Your task to perform on an android device: Clear all items from cart on amazon. Add logitech g933 to the cart on amazon, then select checkout. Image 0: 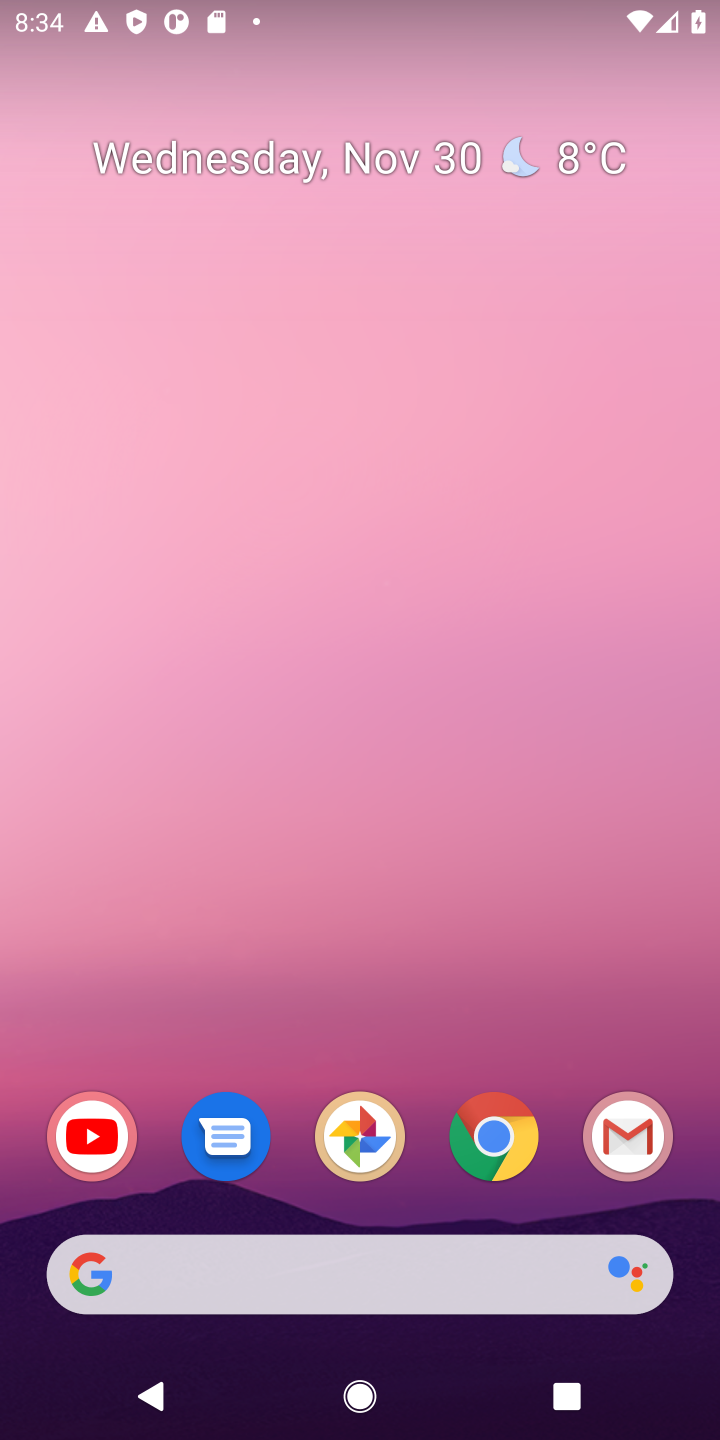
Step 0: click (503, 1133)
Your task to perform on an android device: Clear all items from cart on amazon. Add logitech g933 to the cart on amazon, then select checkout. Image 1: 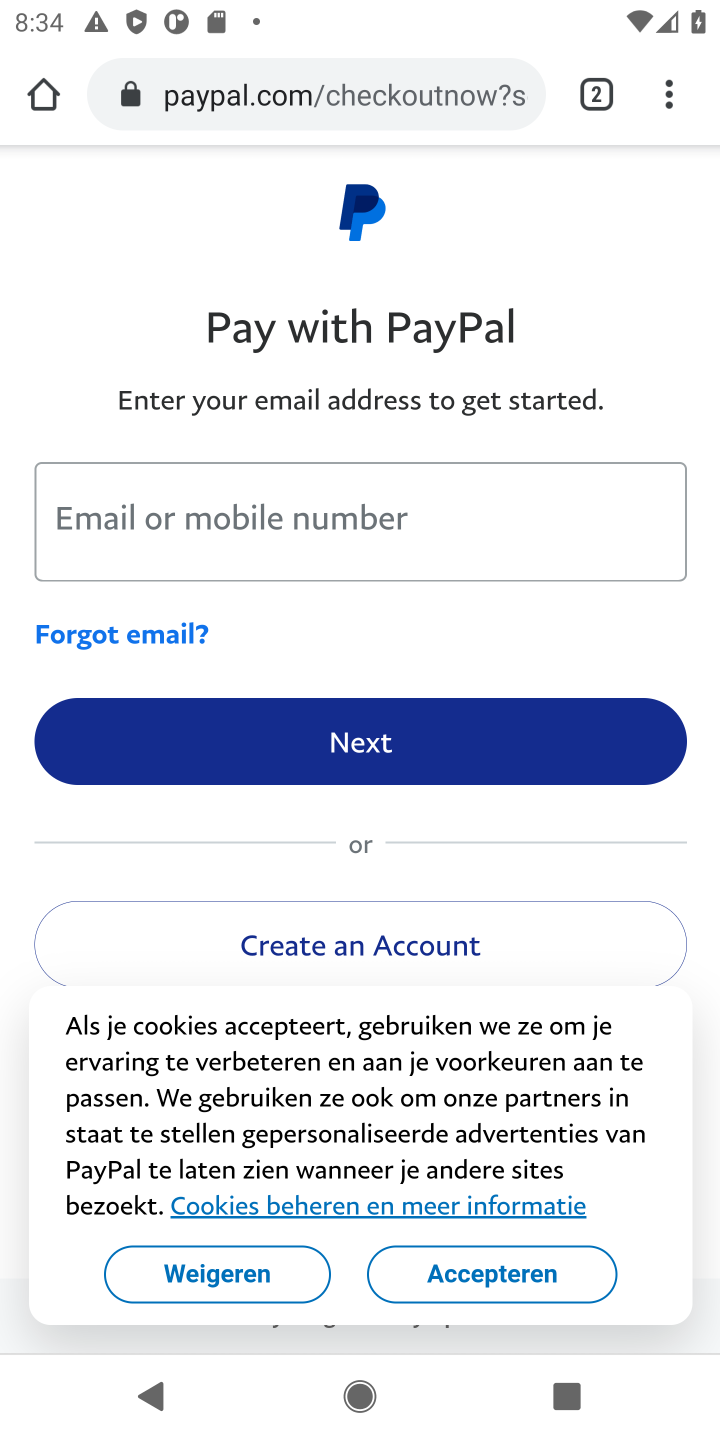
Step 1: click (310, 95)
Your task to perform on an android device: Clear all items from cart on amazon. Add logitech g933 to the cart on amazon, then select checkout. Image 2: 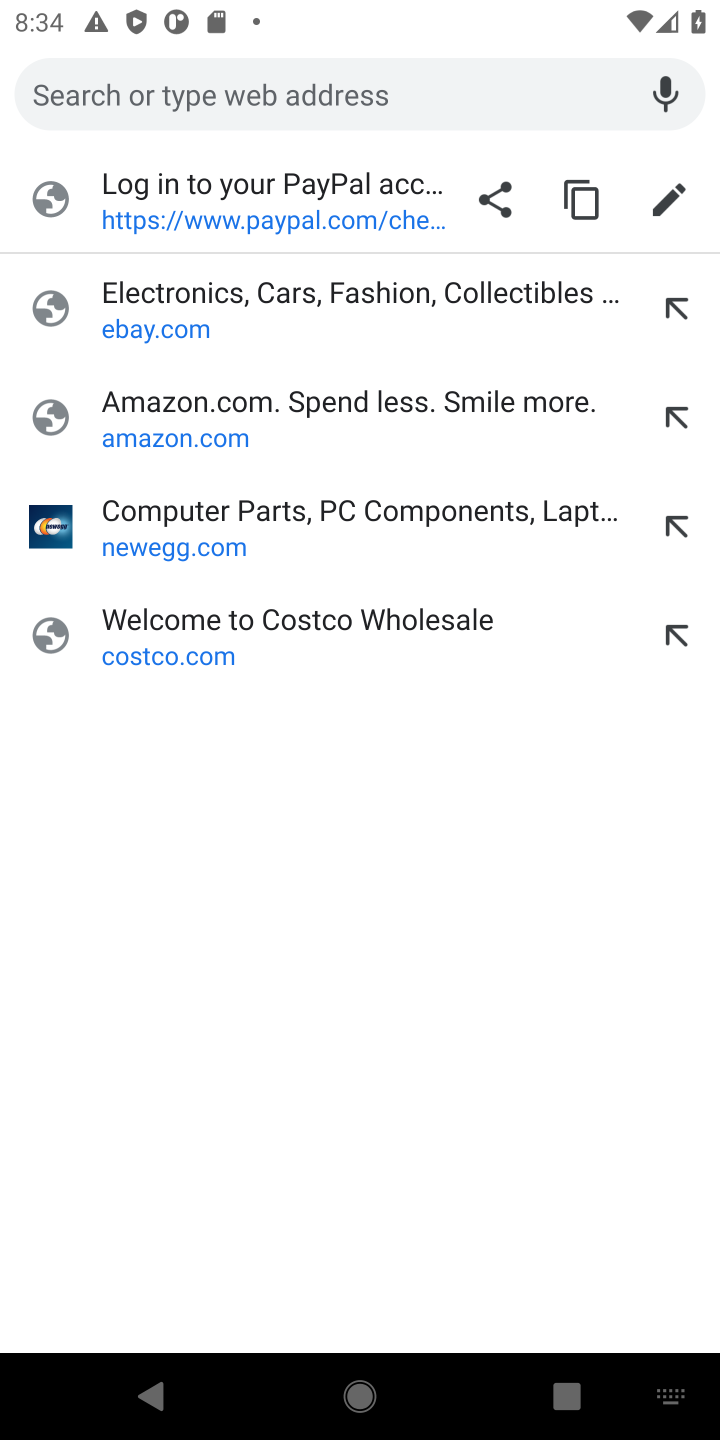
Step 2: click (151, 430)
Your task to perform on an android device: Clear all items from cart on amazon. Add logitech g933 to the cart on amazon, then select checkout. Image 3: 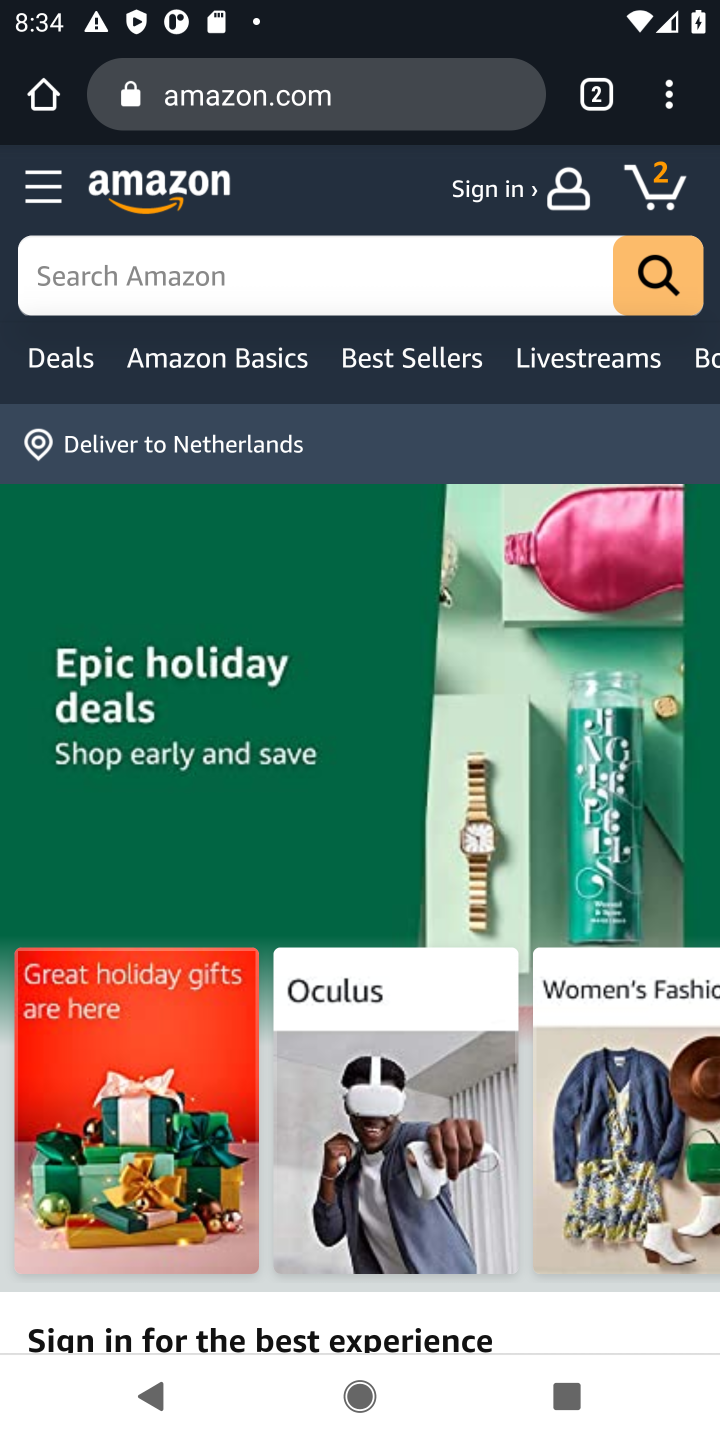
Step 3: click (650, 193)
Your task to perform on an android device: Clear all items from cart on amazon. Add logitech g933 to the cart on amazon, then select checkout. Image 4: 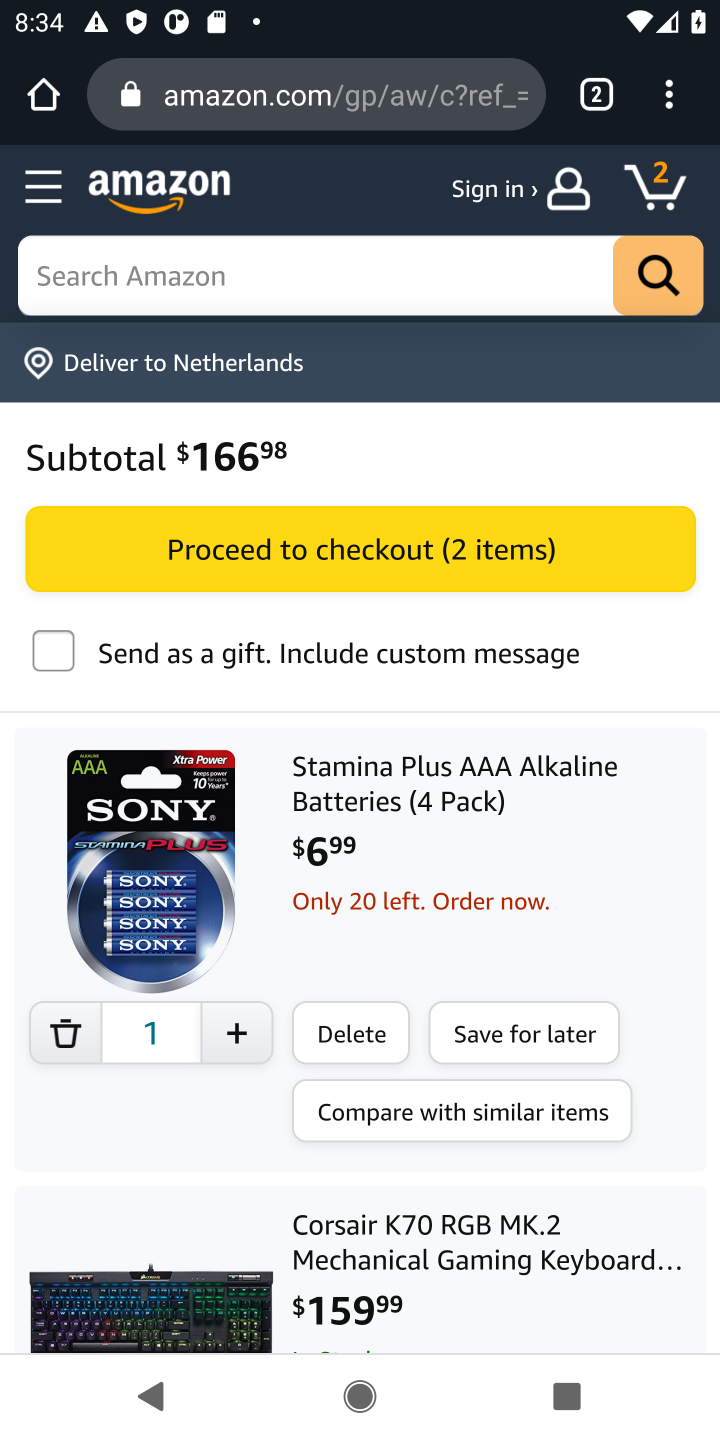
Step 4: click (61, 1032)
Your task to perform on an android device: Clear all items from cart on amazon. Add logitech g933 to the cart on amazon, then select checkout. Image 5: 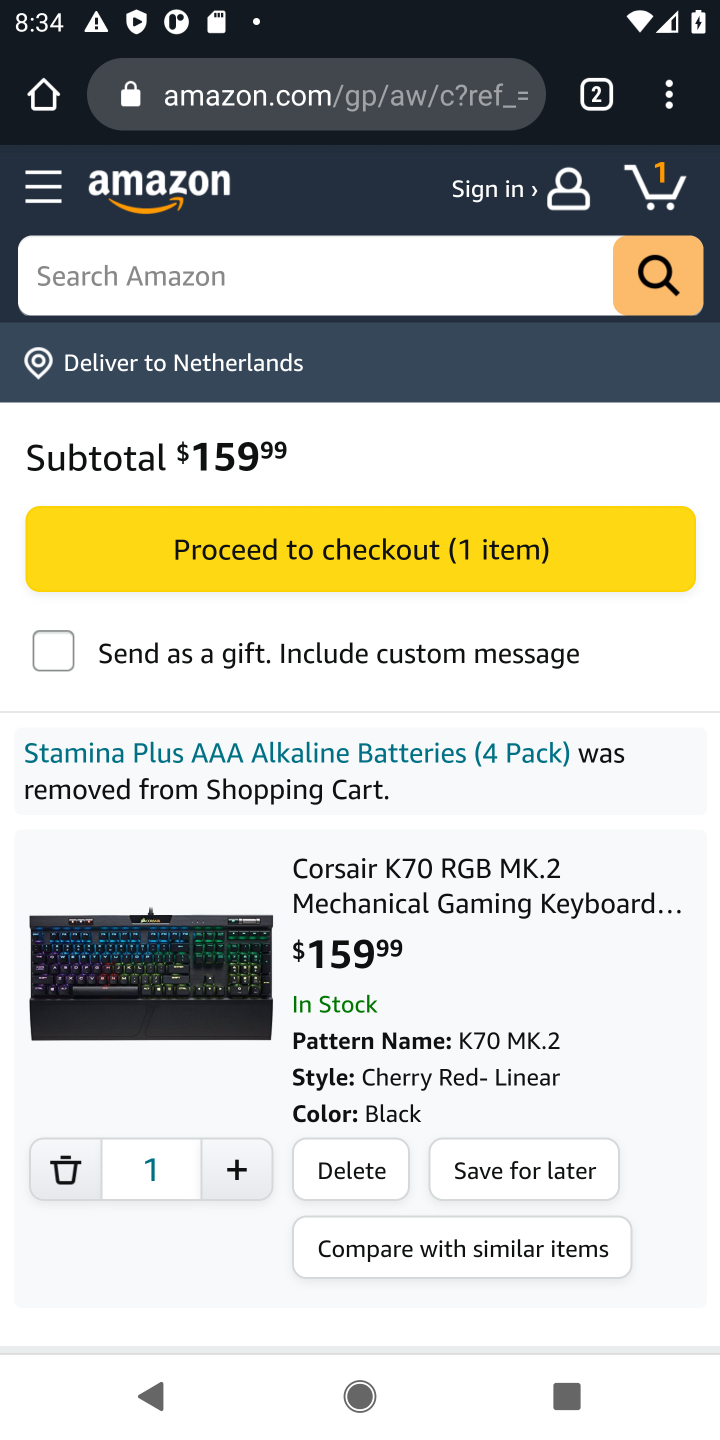
Step 5: click (67, 1169)
Your task to perform on an android device: Clear all items from cart on amazon. Add logitech g933 to the cart on amazon, then select checkout. Image 6: 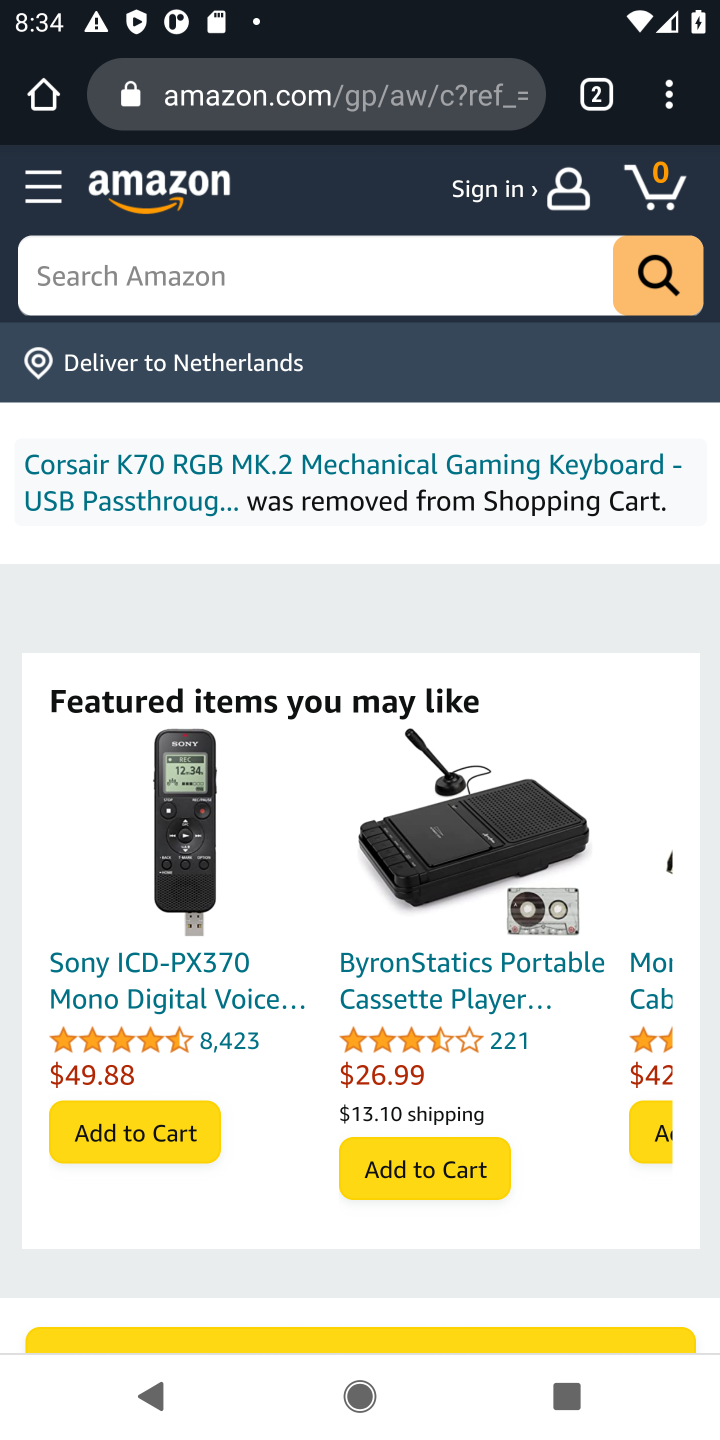
Step 6: click (181, 287)
Your task to perform on an android device: Clear all items from cart on amazon. Add logitech g933 to the cart on amazon, then select checkout. Image 7: 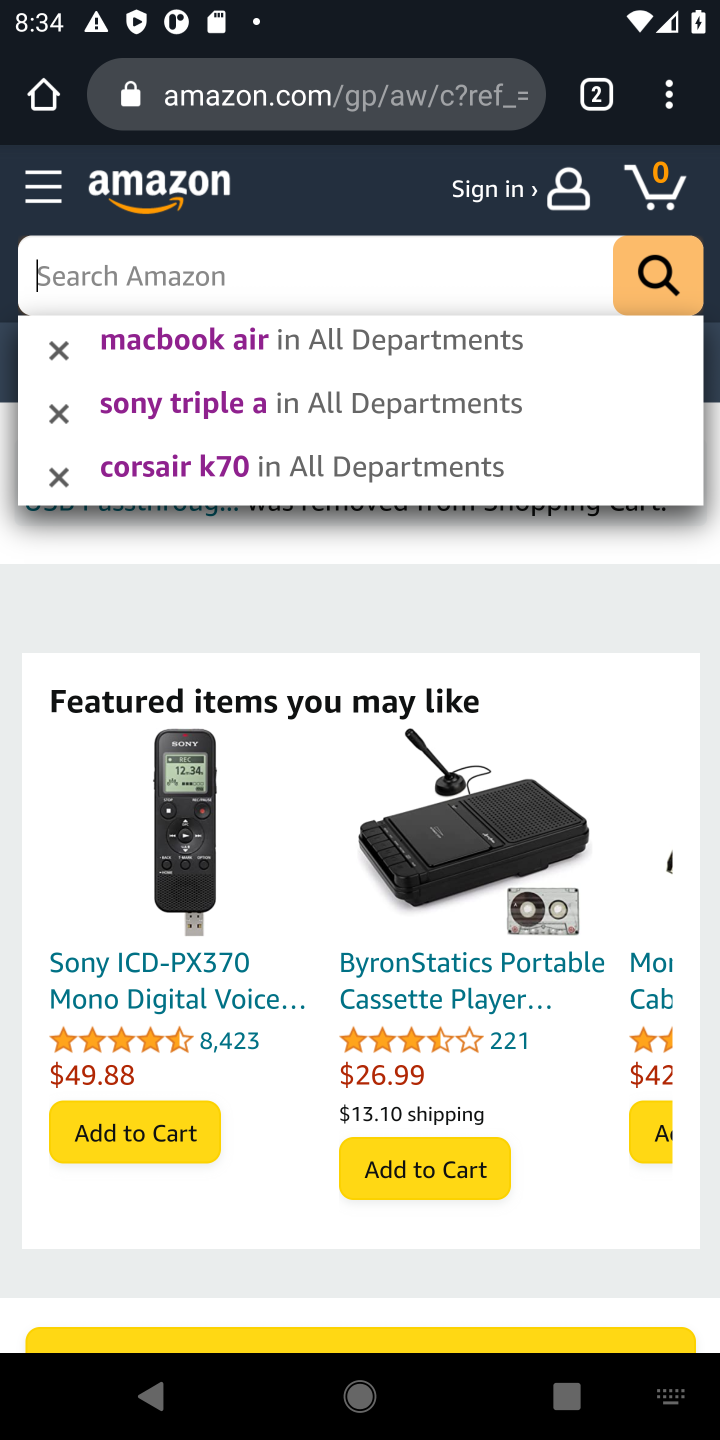
Step 7: type "logitech g933 "
Your task to perform on an android device: Clear all items from cart on amazon. Add logitech g933 to the cart on amazon, then select checkout. Image 8: 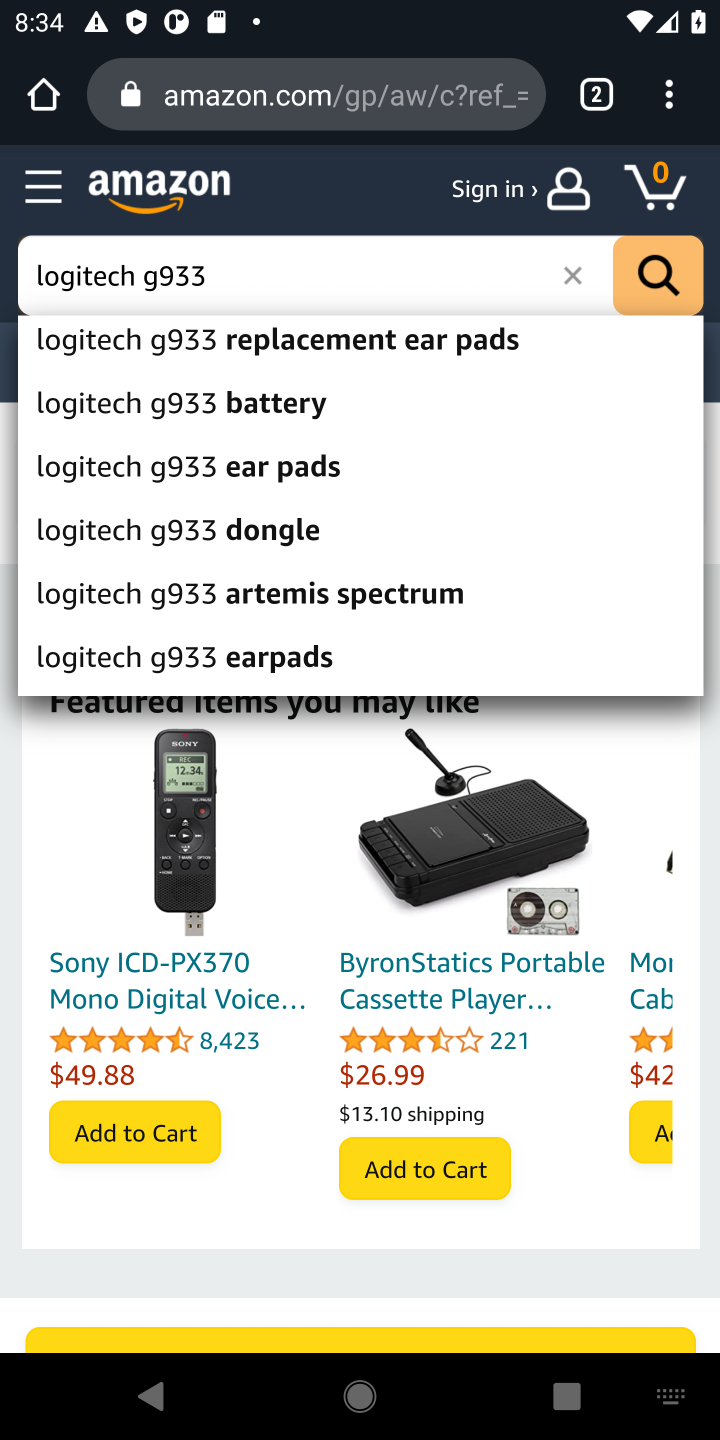
Step 8: click (656, 282)
Your task to perform on an android device: Clear all items from cart on amazon. Add logitech g933 to the cart on amazon, then select checkout. Image 9: 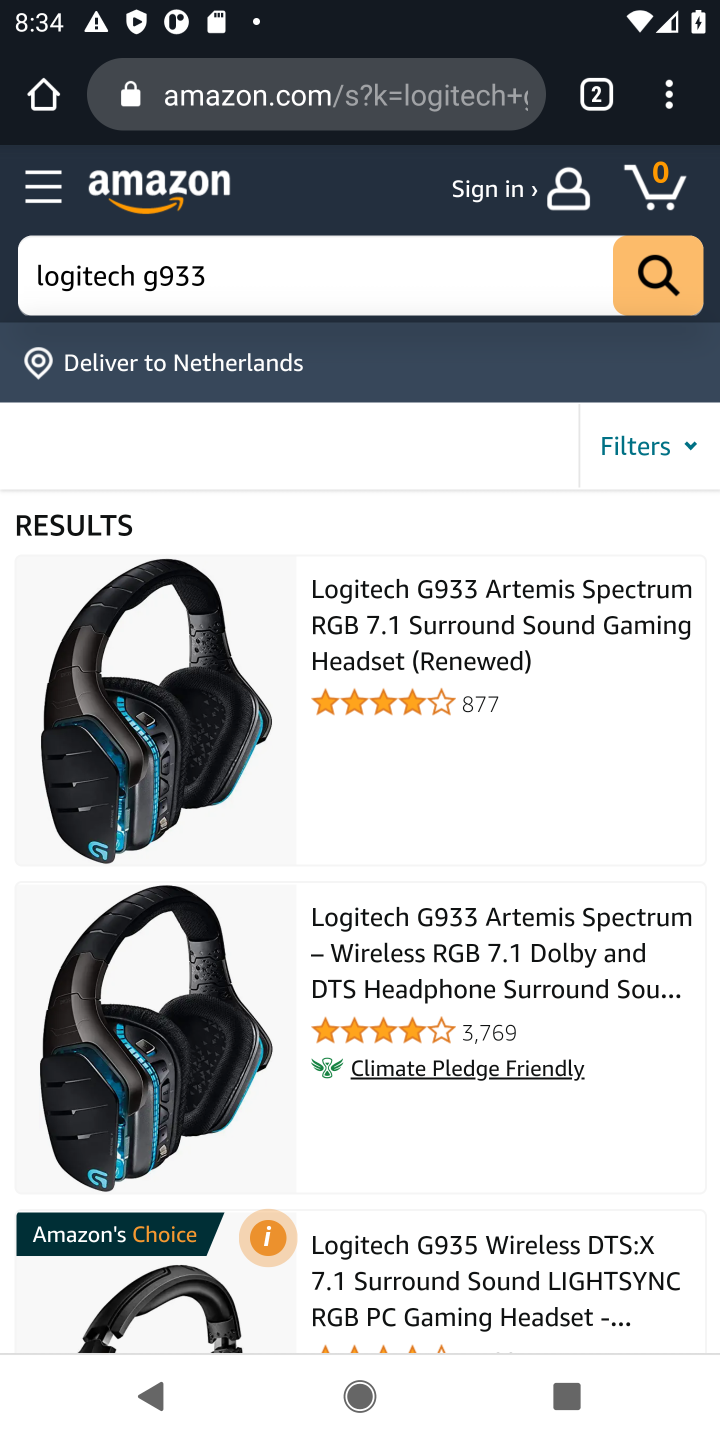
Step 9: drag from (500, 979) to (452, 503)
Your task to perform on an android device: Clear all items from cart on amazon. Add logitech g933 to the cart on amazon, then select checkout. Image 10: 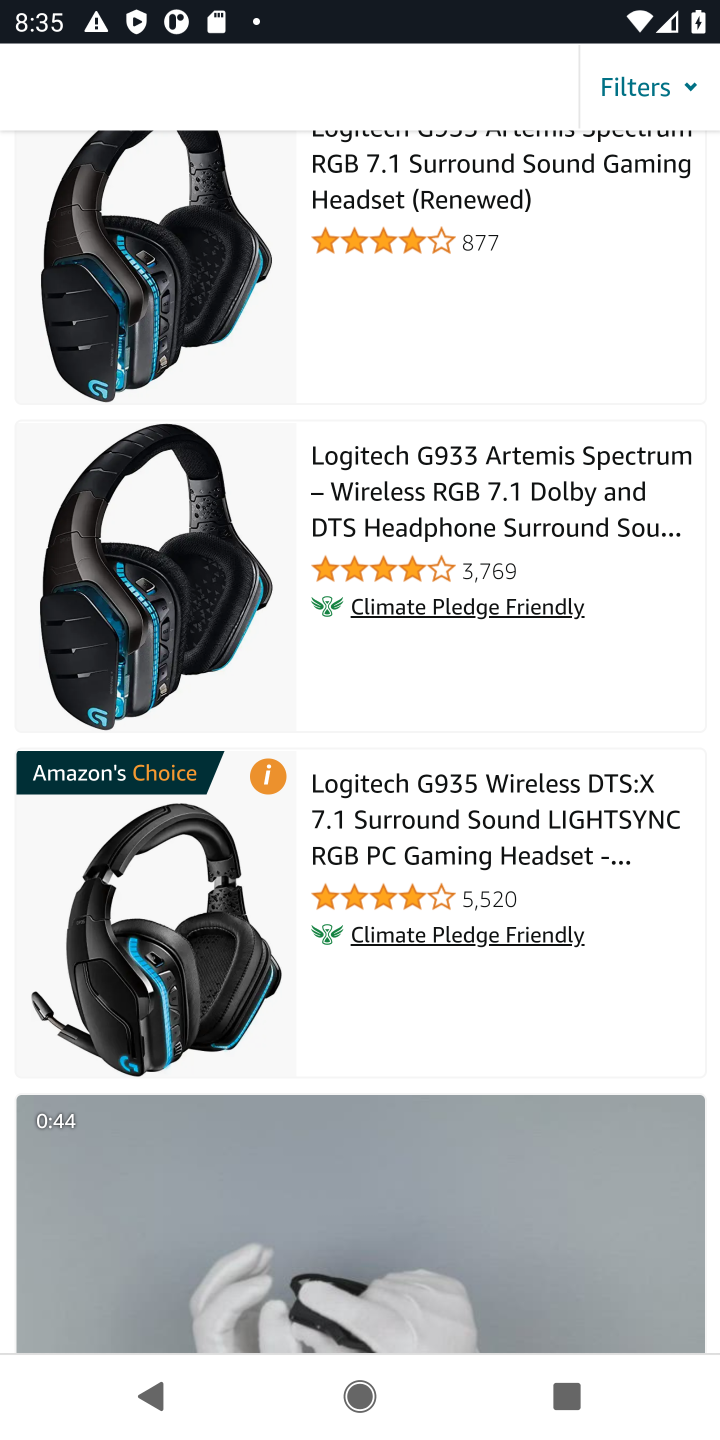
Step 10: drag from (403, 889) to (331, 292)
Your task to perform on an android device: Clear all items from cart on amazon. Add logitech g933 to the cart on amazon, then select checkout. Image 11: 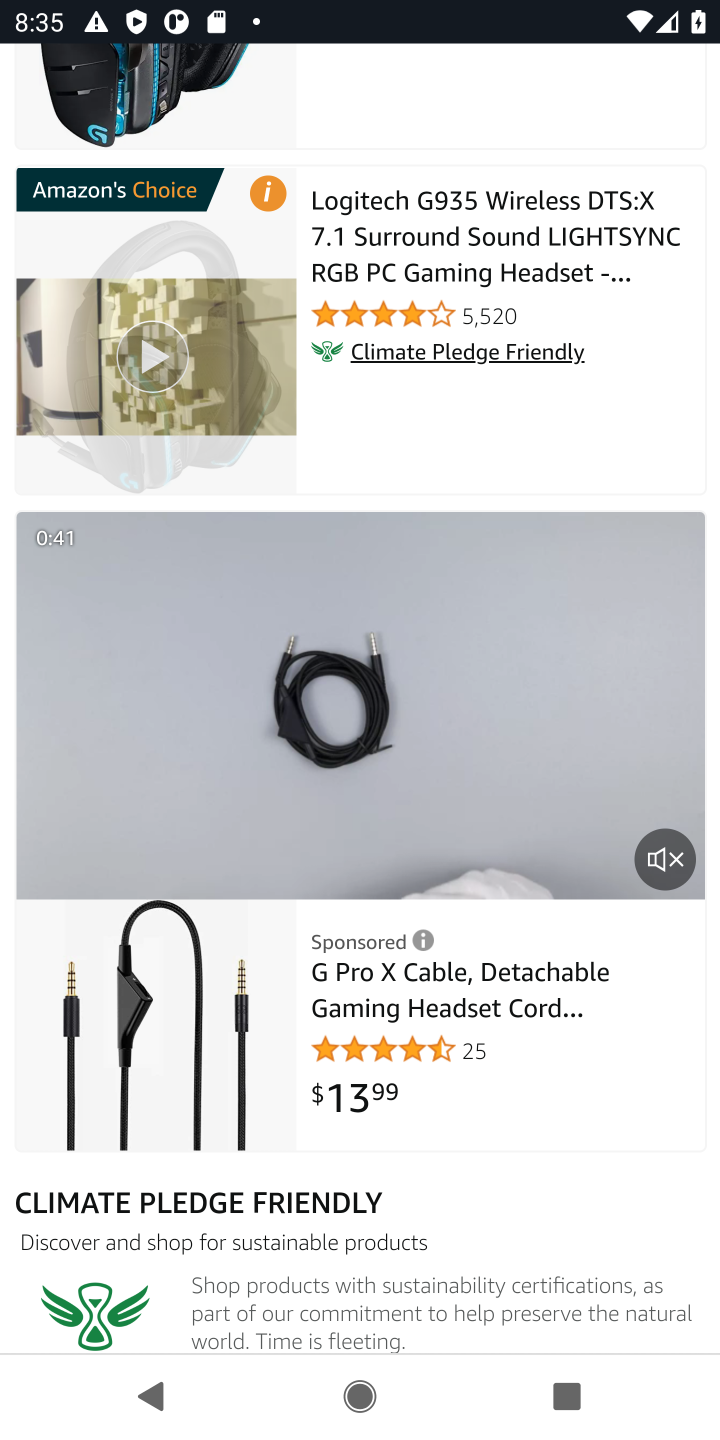
Step 11: drag from (522, 1077) to (481, 676)
Your task to perform on an android device: Clear all items from cart on amazon. Add logitech g933 to the cart on amazon, then select checkout. Image 12: 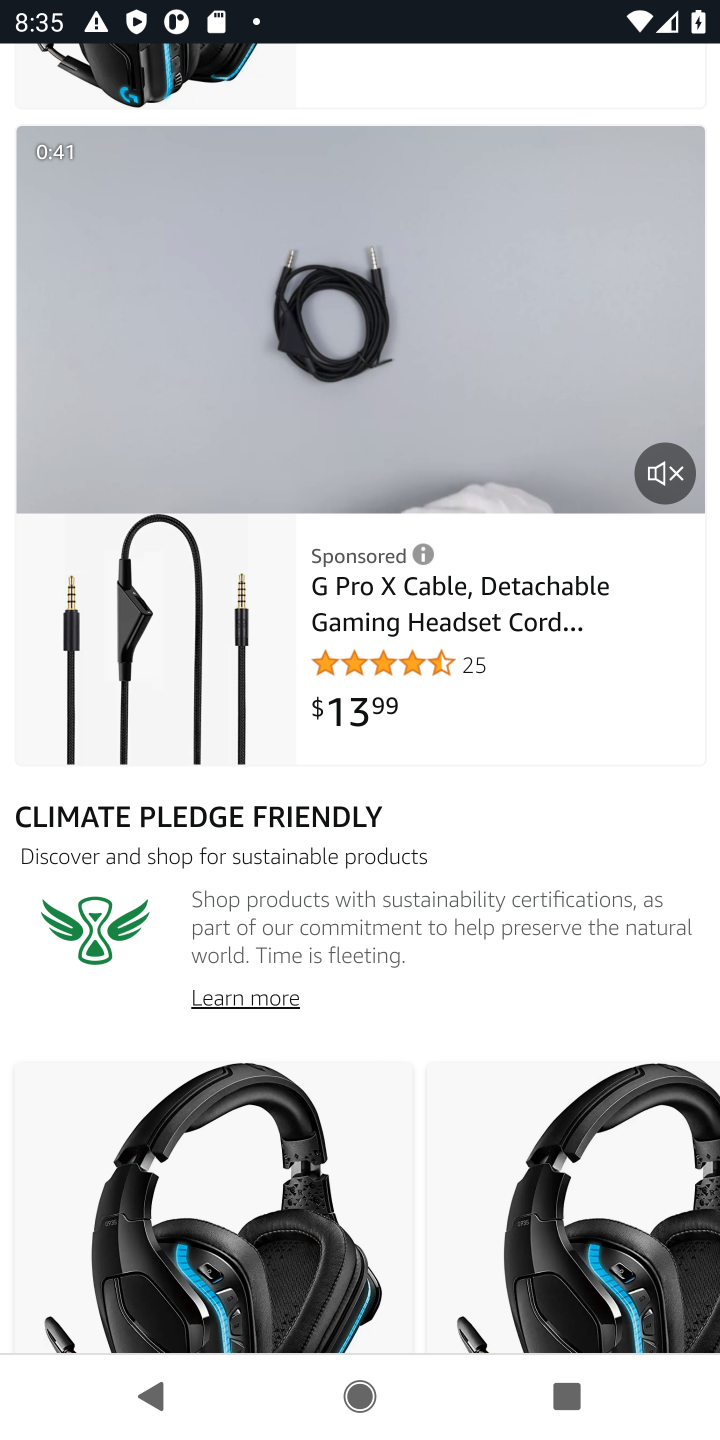
Step 12: drag from (420, 970) to (382, 377)
Your task to perform on an android device: Clear all items from cart on amazon. Add logitech g933 to the cart on amazon, then select checkout. Image 13: 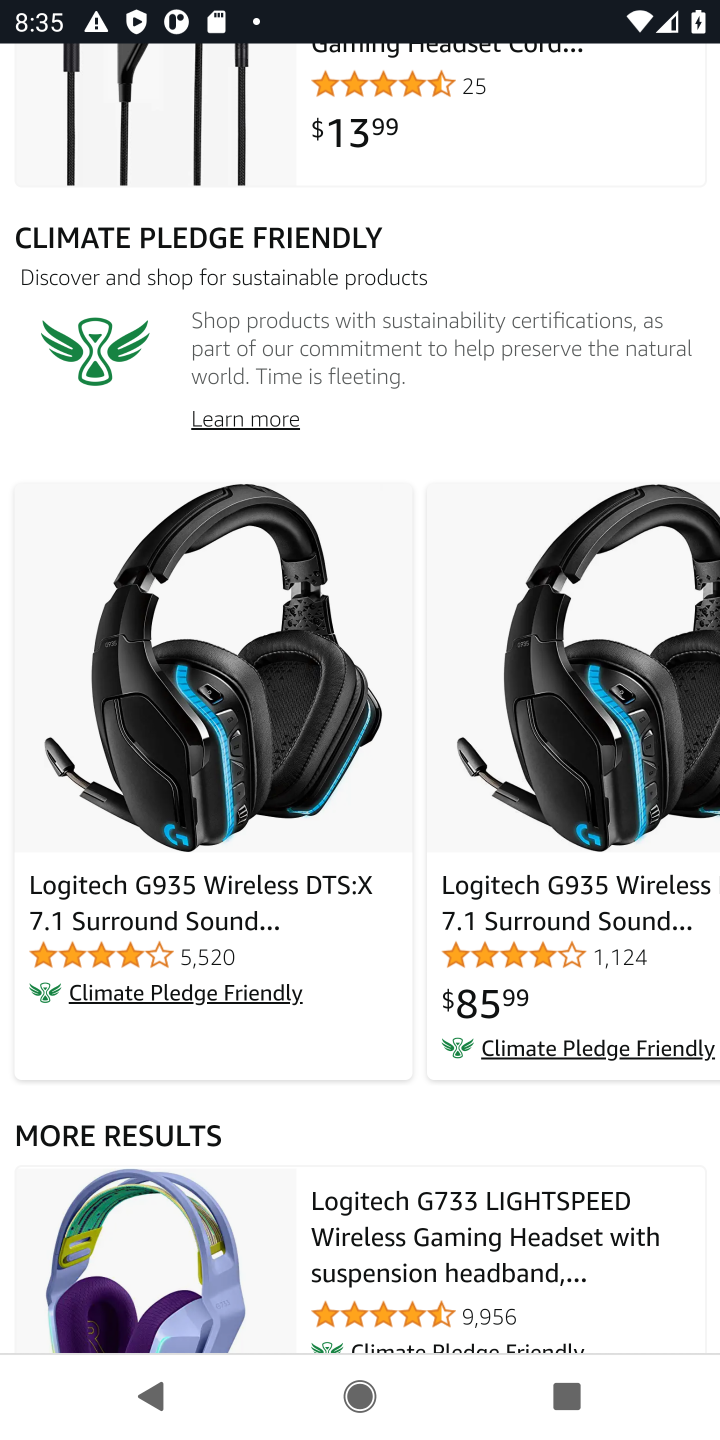
Step 13: drag from (424, 1133) to (374, 455)
Your task to perform on an android device: Clear all items from cart on amazon. Add logitech g933 to the cart on amazon, then select checkout. Image 14: 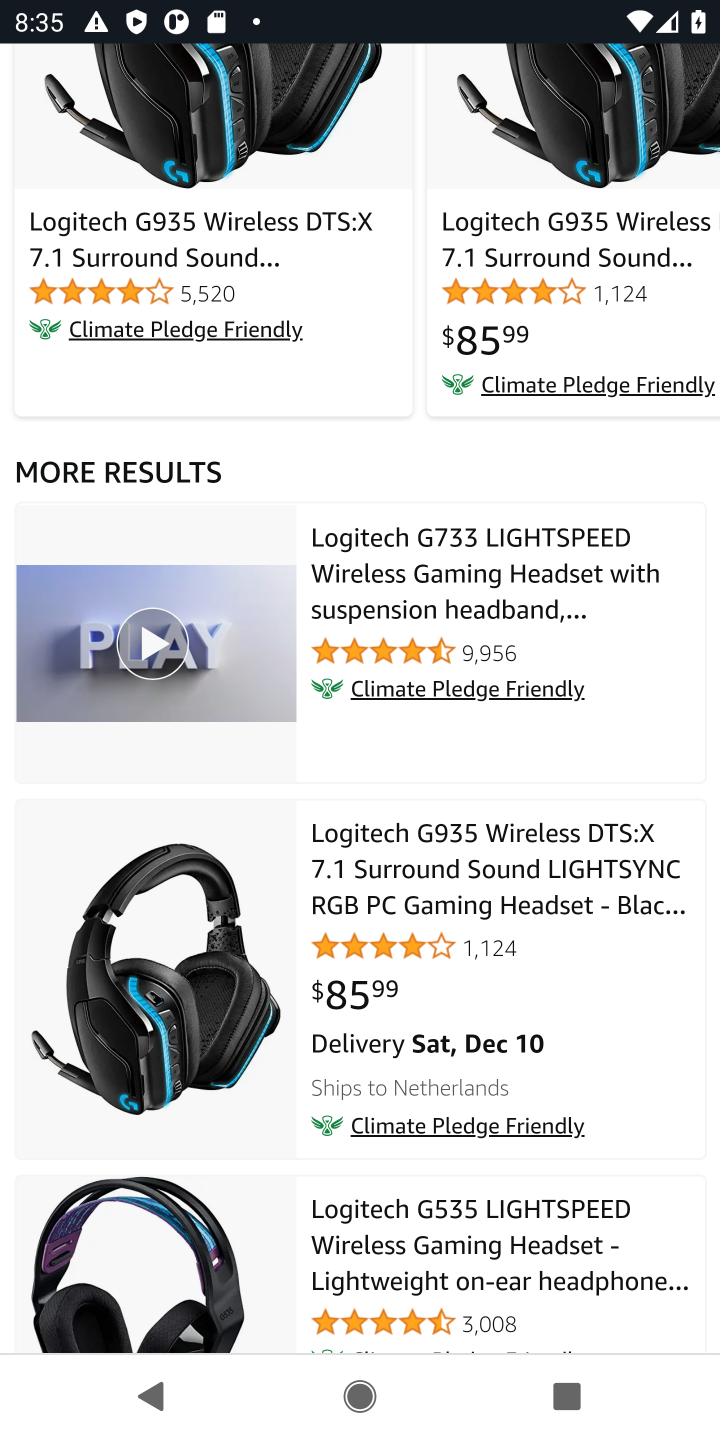
Step 14: drag from (558, 1035) to (515, 579)
Your task to perform on an android device: Clear all items from cart on amazon. Add logitech g933 to the cart on amazon, then select checkout. Image 15: 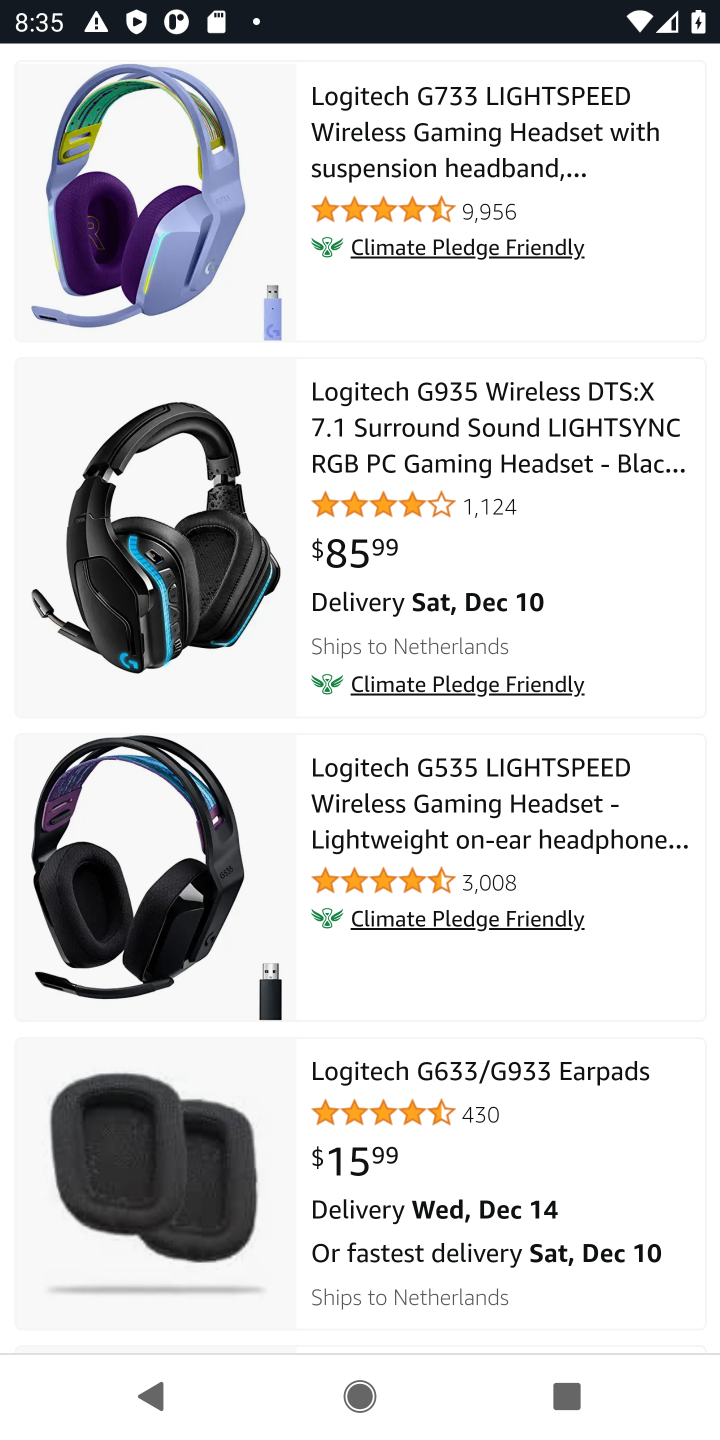
Step 15: drag from (466, 926) to (427, 515)
Your task to perform on an android device: Clear all items from cart on amazon. Add logitech g933 to the cart on amazon, then select checkout. Image 16: 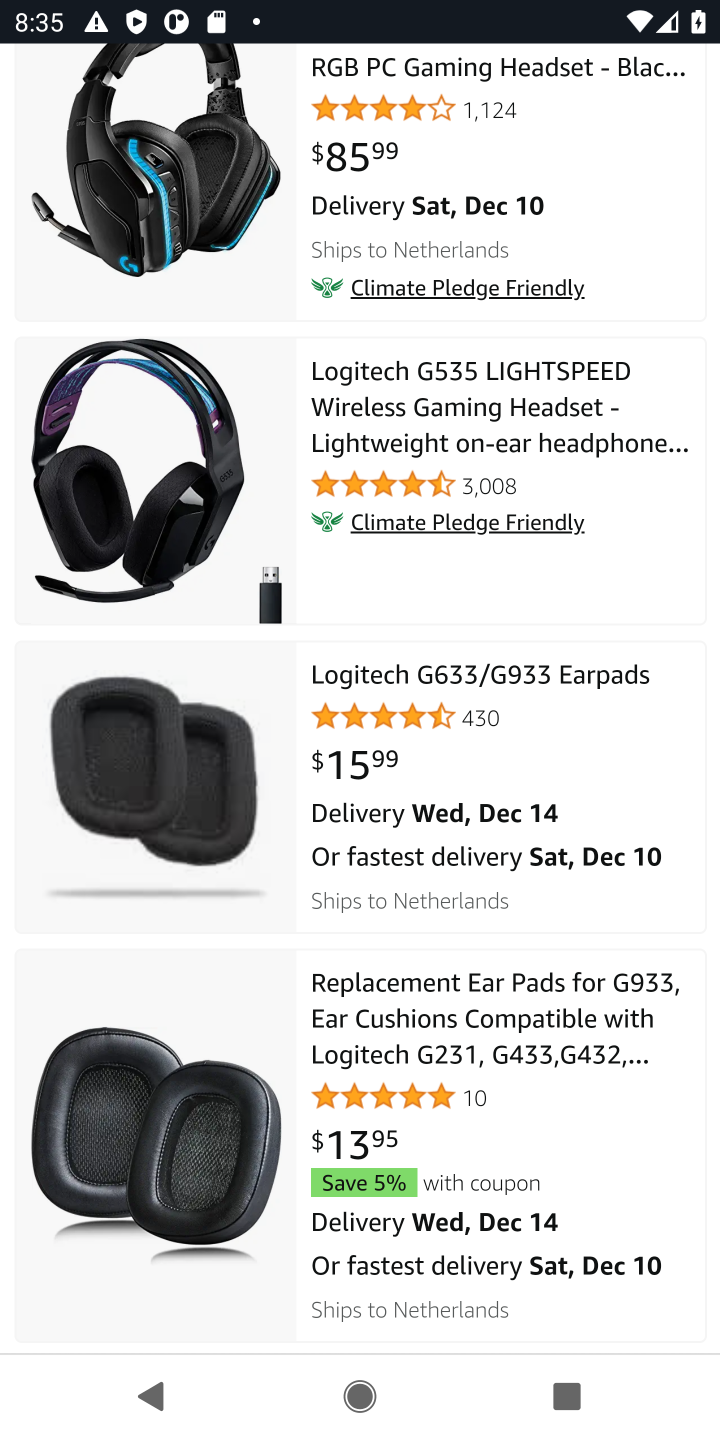
Step 16: click (500, 707)
Your task to perform on an android device: Clear all items from cart on amazon. Add logitech g933 to the cart on amazon, then select checkout. Image 17: 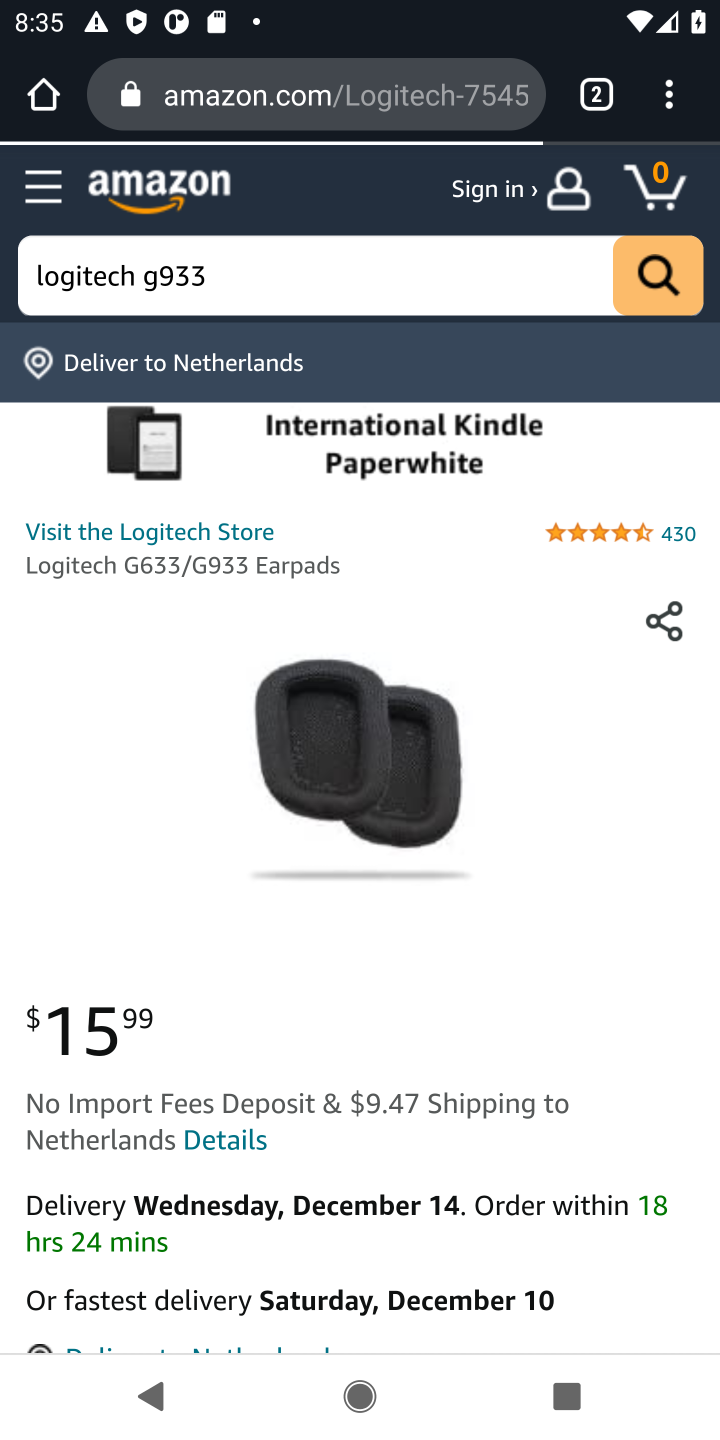
Step 17: drag from (337, 899) to (321, 375)
Your task to perform on an android device: Clear all items from cart on amazon. Add logitech g933 to the cart on amazon, then select checkout. Image 18: 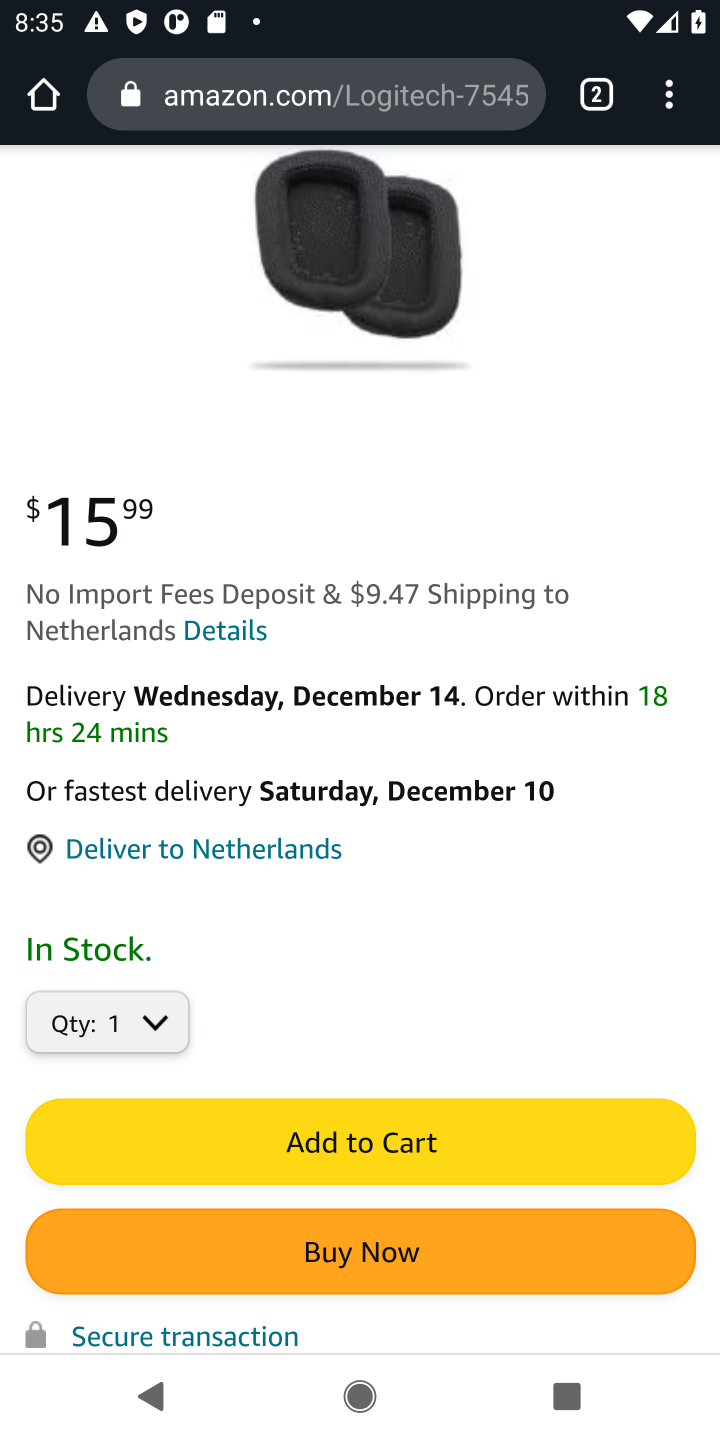
Step 18: click (280, 1136)
Your task to perform on an android device: Clear all items from cart on amazon. Add logitech g933 to the cart on amazon, then select checkout. Image 19: 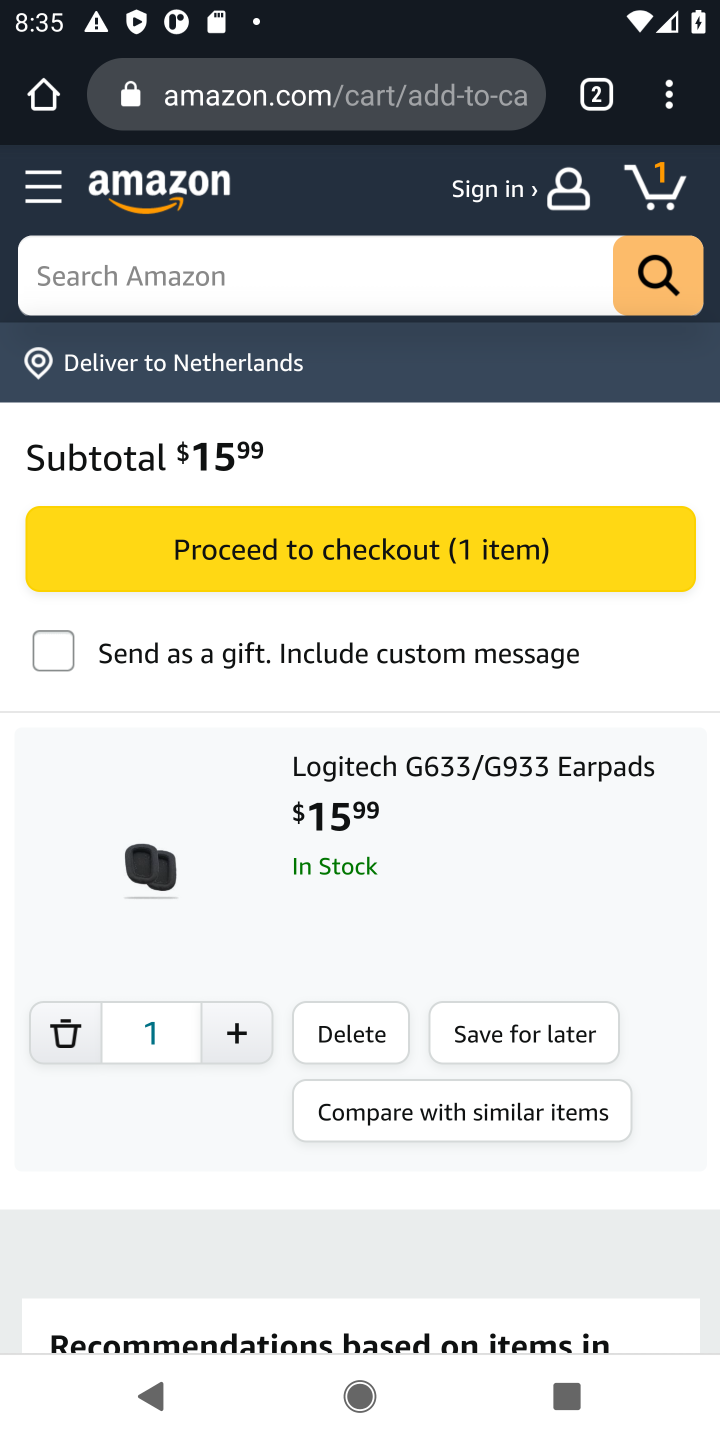
Step 19: click (289, 541)
Your task to perform on an android device: Clear all items from cart on amazon. Add logitech g933 to the cart on amazon, then select checkout. Image 20: 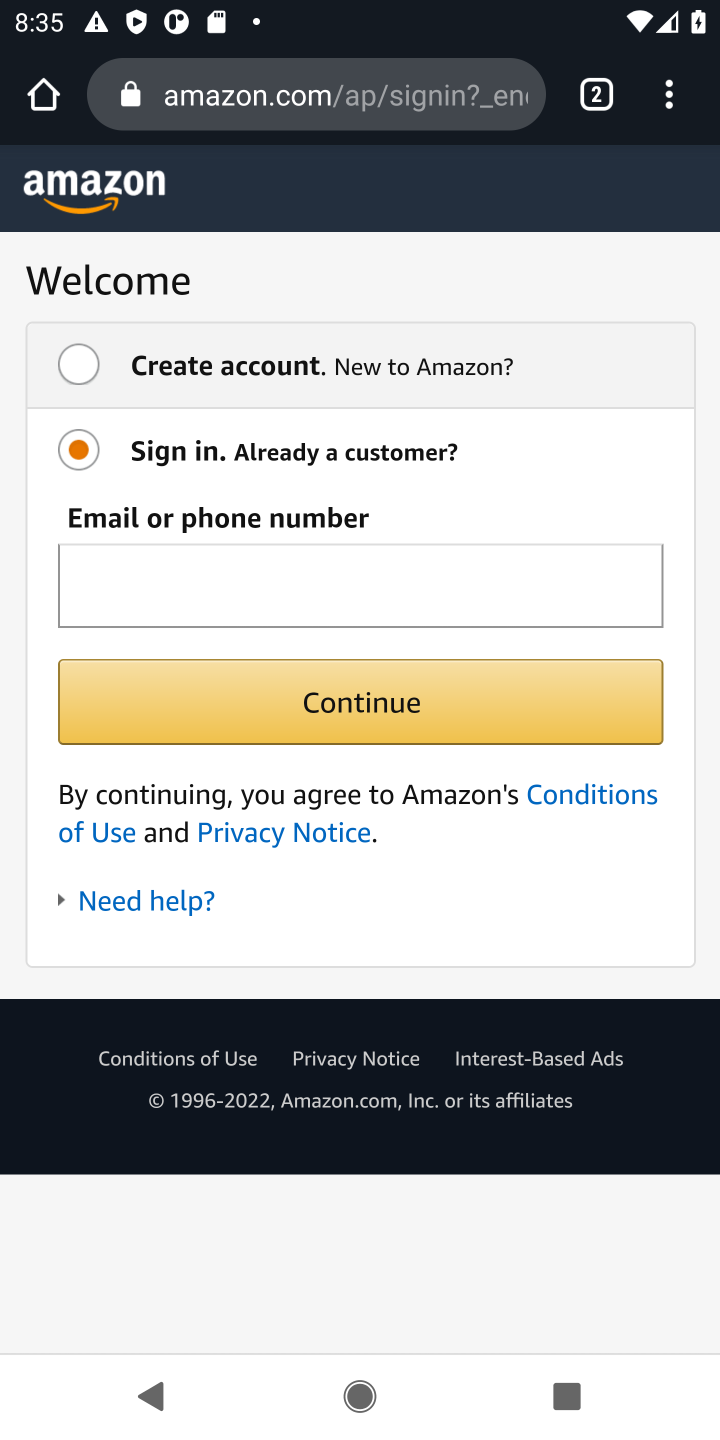
Step 20: task complete